Your task to perform on an android device: turn vacation reply on in the gmail app Image 0: 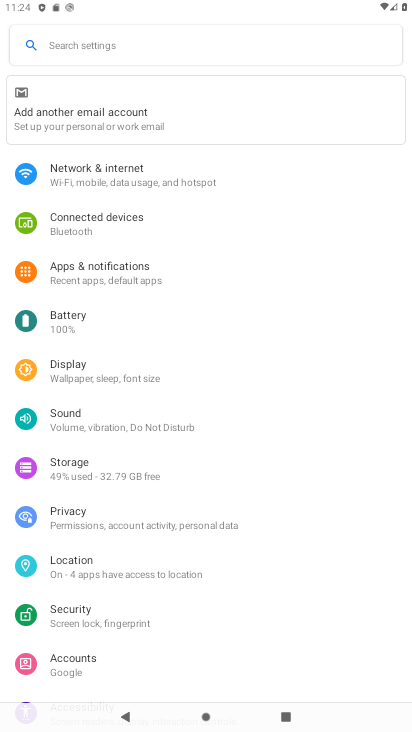
Step 0: press home button
Your task to perform on an android device: turn vacation reply on in the gmail app Image 1: 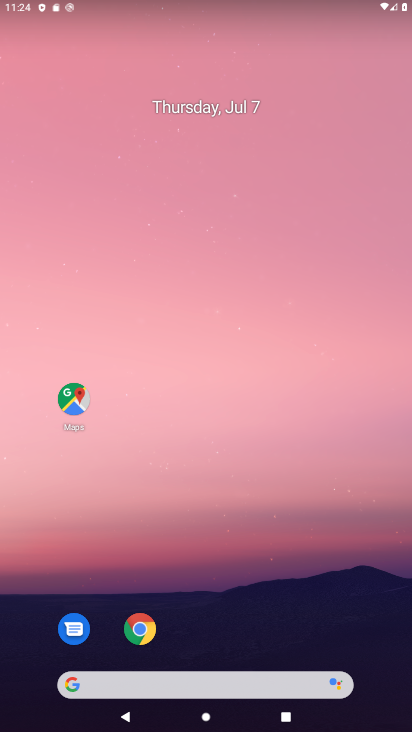
Step 1: drag from (366, 591) to (337, 181)
Your task to perform on an android device: turn vacation reply on in the gmail app Image 2: 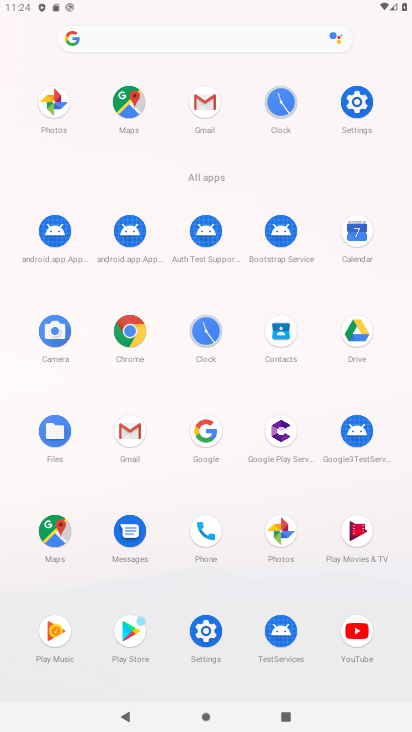
Step 2: click (128, 429)
Your task to perform on an android device: turn vacation reply on in the gmail app Image 3: 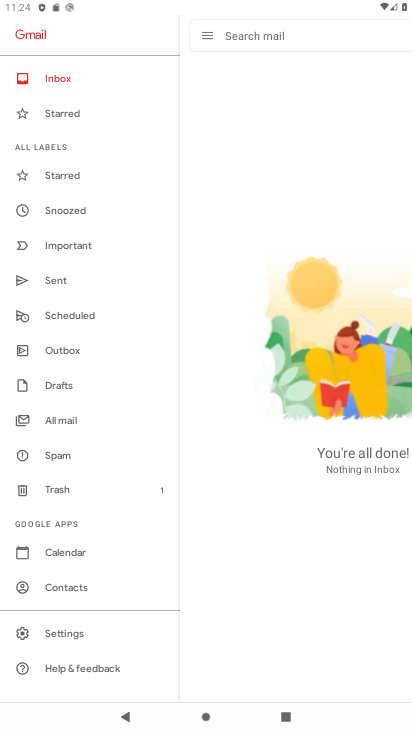
Step 3: click (82, 629)
Your task to perform on an android device: turn vacation reply on in the gmail app Image 4: 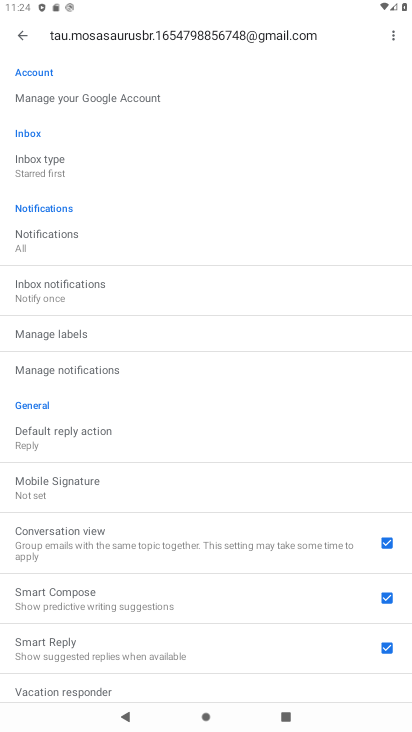
Step 4: drag from (175, 620) to (182, 347)
Your task to perform on an android device: turn vacation reply on in the gmail app Image 5: 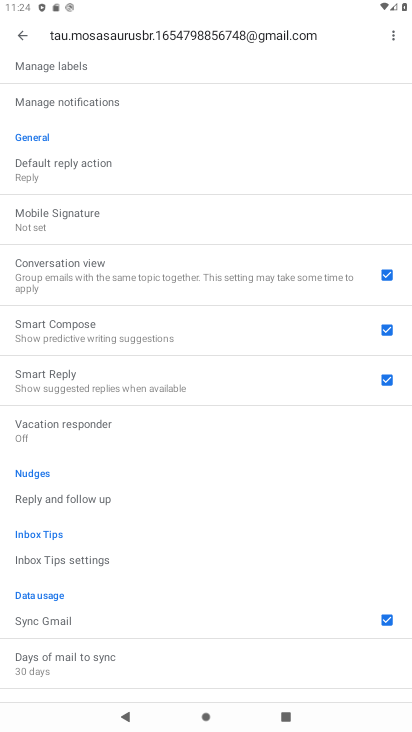
Step 5: click (61, 422)
Your task to perform on an android device: turn vacation reply on in the gmail app Image 6: 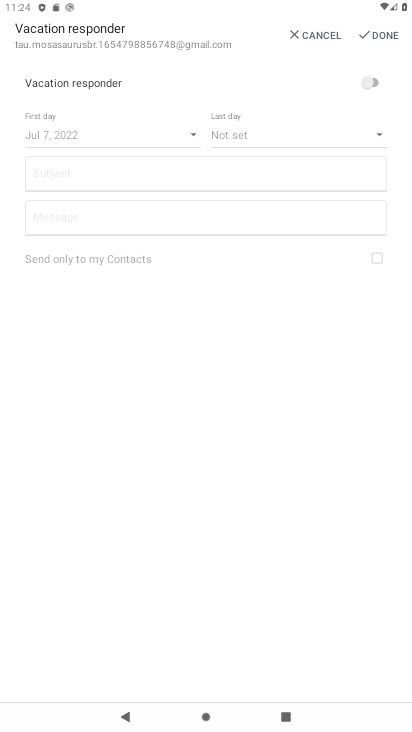
Step 6: click (377, 82)
Your task to perform on an android device: turn vacation reply on in the gmail app Image 7: 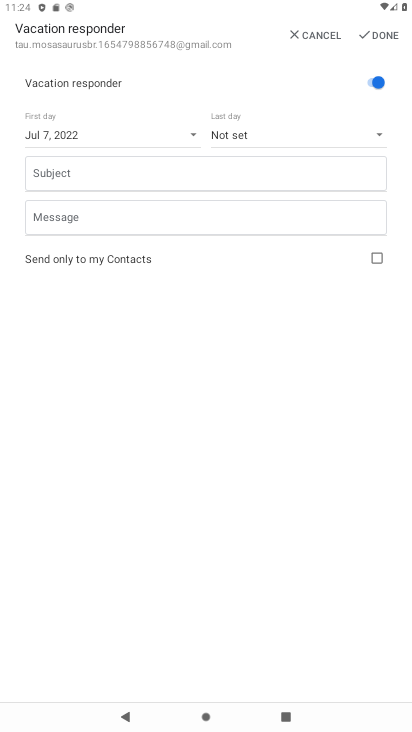
Step 7: task complete